Your task to perform on an android device: turn on the 12-hour format for clock Image 0: 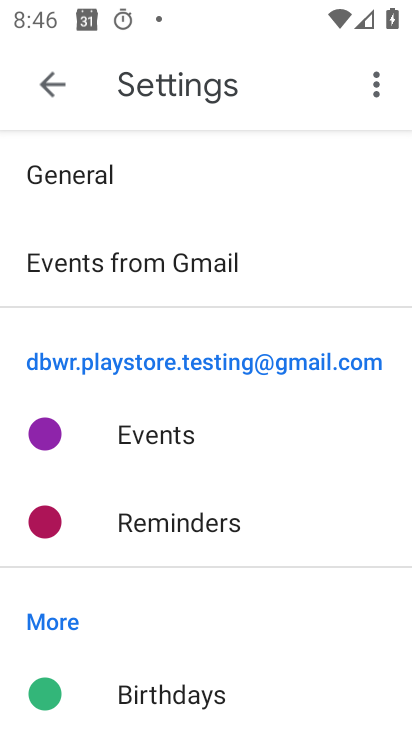
Step 0: press home button
Your task to perform on an android device: turn on the 12-hour format for clock Image 1: 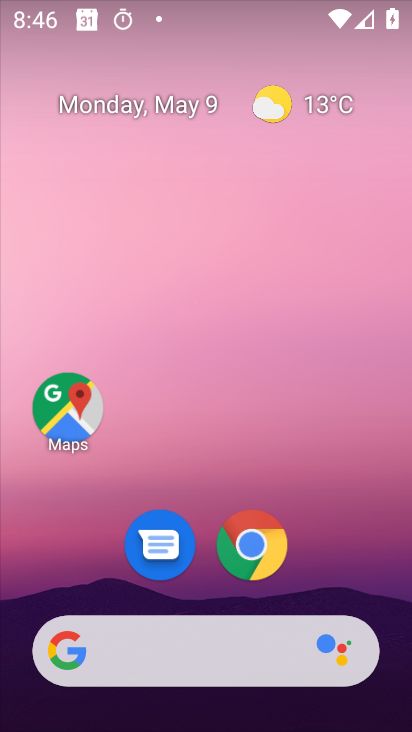
Step 1: drag from (342, 555) to (322, 6)
Your task to perform on an android device: turn on the 12-hour format for clock Image 2: 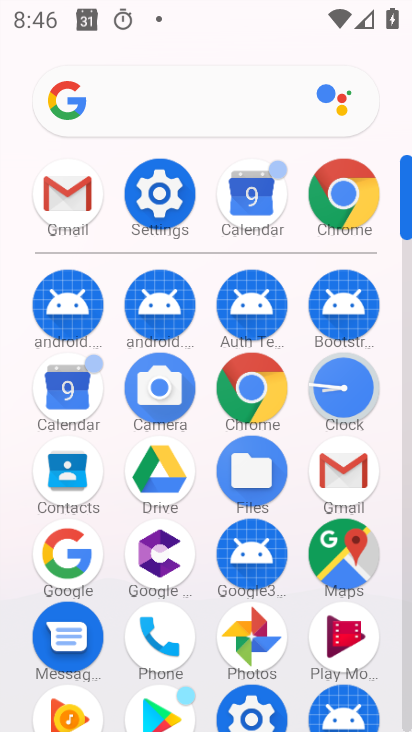
Step 2: click (341, 402)
Your task to perform on an android device: turn on the 12-hour format for clock Image 3: 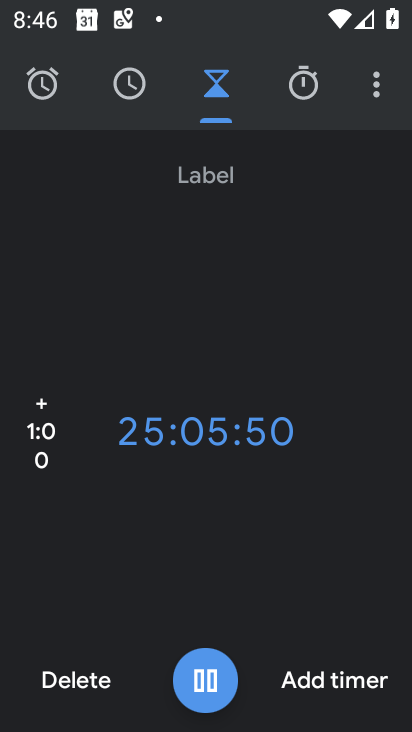
Step 3: click (366, 74)
Your task to perform on an android device: turn on the 12-hour format for clock Image 4: 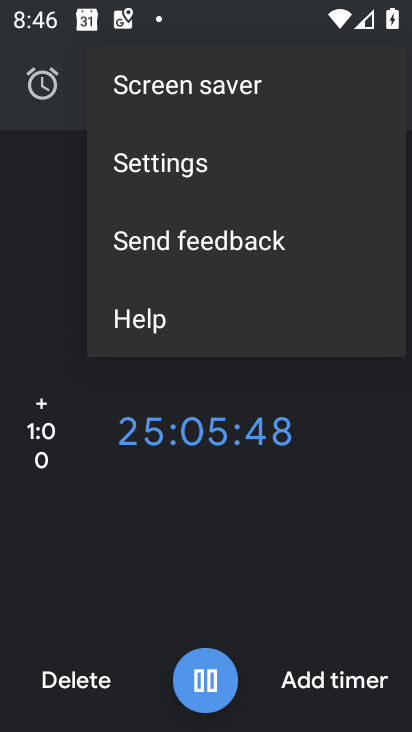
Step 4: click (204, 170)
Your task to perform on an android device: turn on the 12-hour format for clock Image 5: 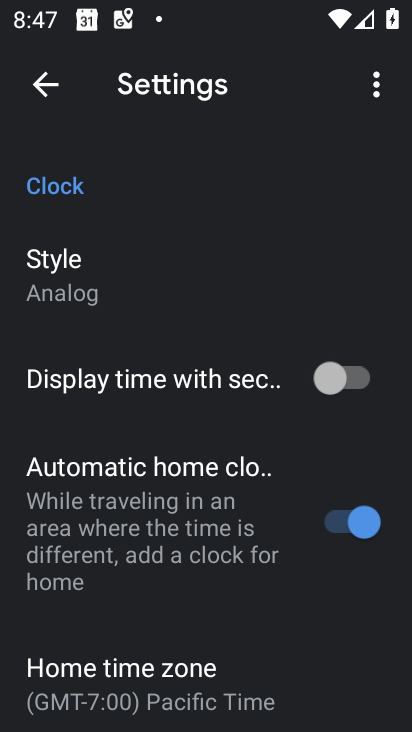
Step 5: drag from (240, 576) to (264, 181)
Your task to perform on an android device: turn on the 12-hour format for clock Image 6: 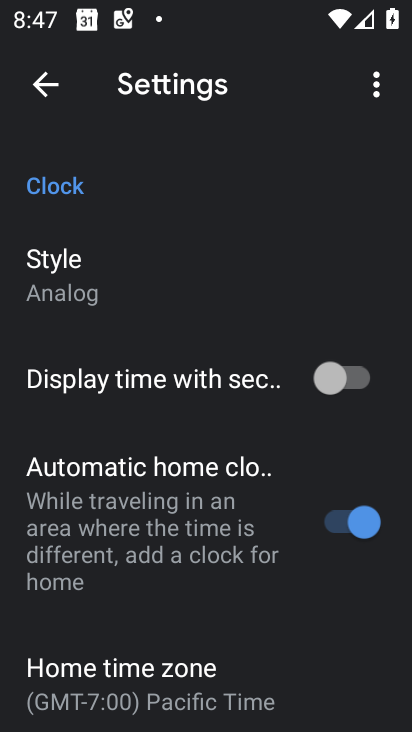
Step 6: drag from (212, 653) to (283, 207)
Your task to perform on an android device: turn on the 12-hour format for clock Image 7: 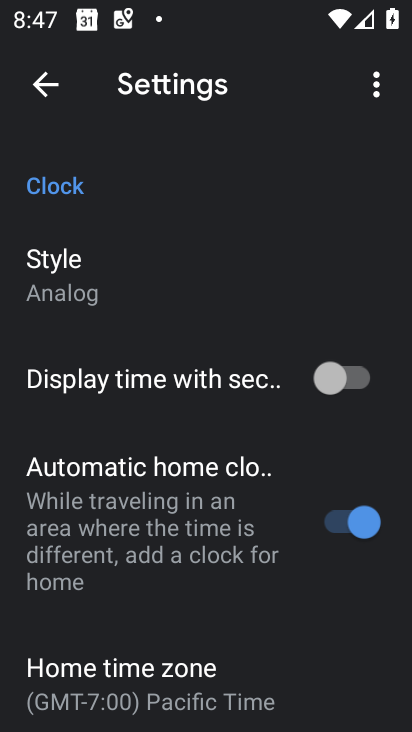
Step 7: drag from (192, 482) to (128, 124)
Your task to perform on an android device: turn on the 12-hour format for clock Image 8: 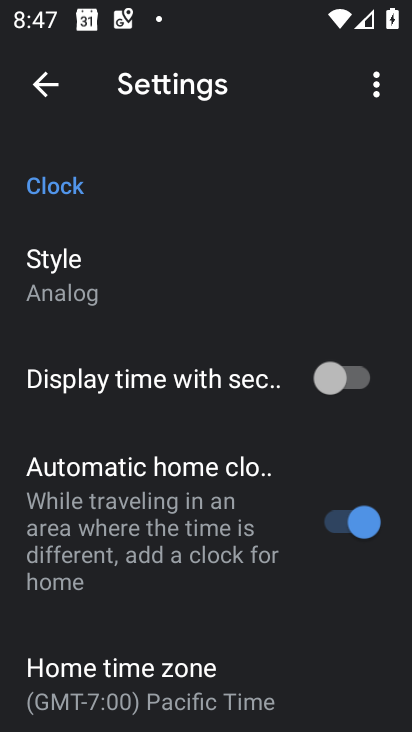
Step 8: click (61, 84)
Your task to perform on an android device: turn on the 12-hour format for clock Image 9: 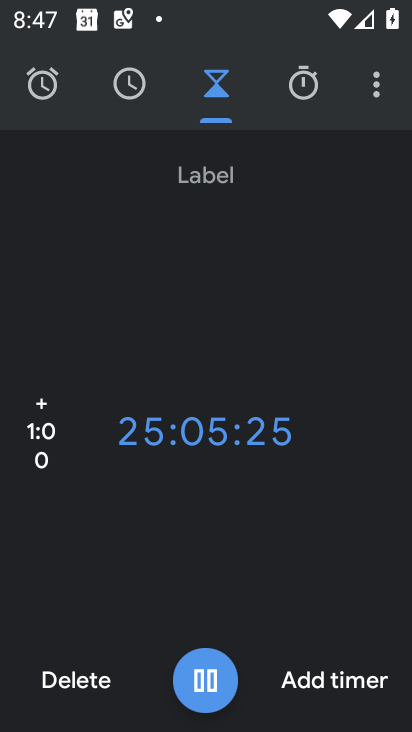
Step 9: click (377, 94)
Your task to perform on an android device: turn on the 12-hour format for clock Image 10: 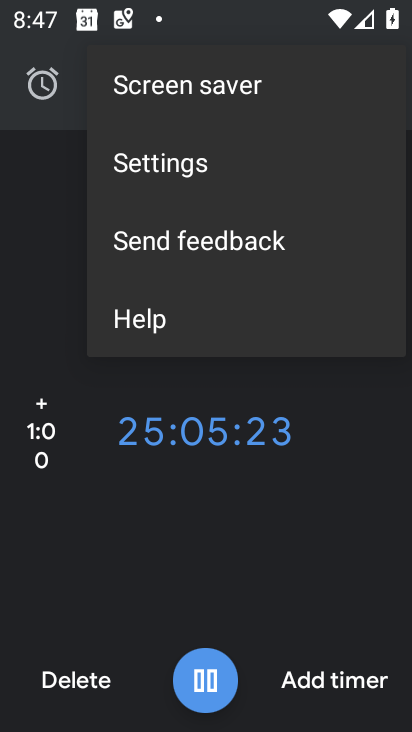
Step 10: click (156, 179)
Your task to perform on an android device: turn on the 12-hour format for clock Image 11: 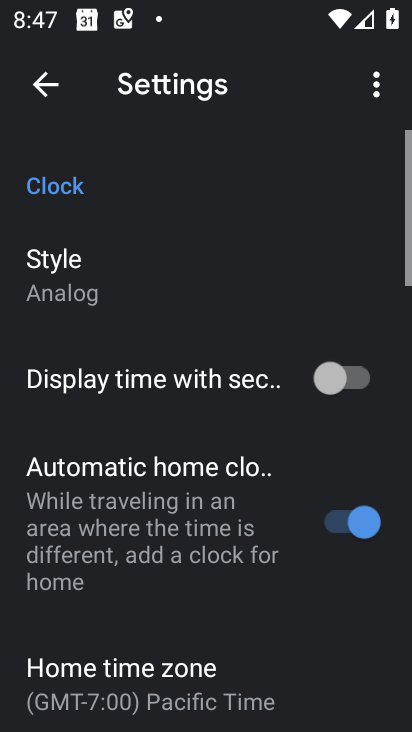
Step 11: drag from (202, 199) to (230, 592)
Your task to perform on an android device: turn on the 12-hour format for clock Image 12: 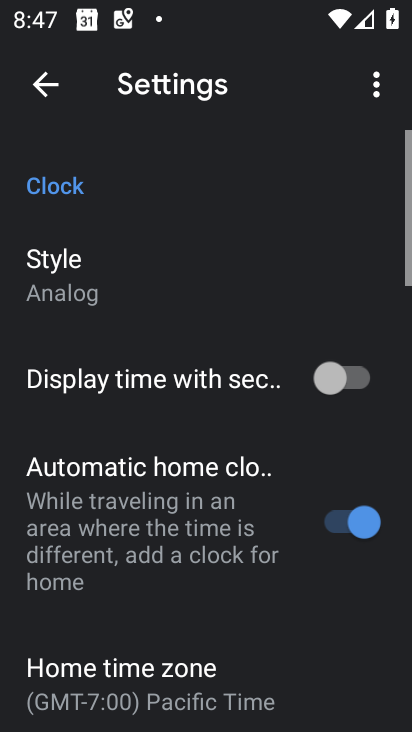
Step 12: drag from (205, 631) to (170, 171)
Your task to perform on an android device: turn on the 12-hour format for clock Image 13: 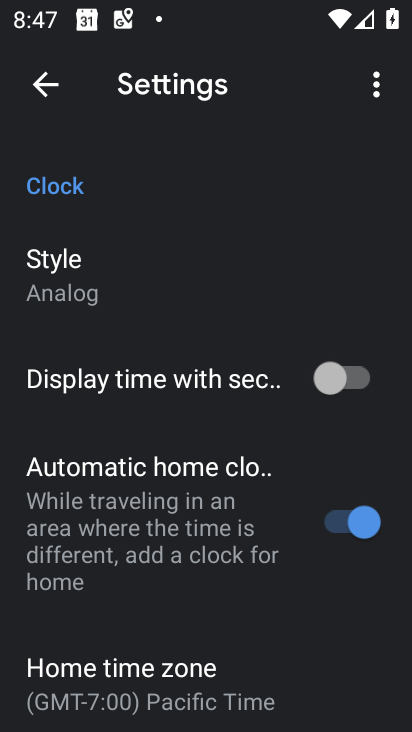
Step 13: drag from (234, 682) to (129, 202)
Your task to perform on an android device: turn on the 12-hour format for clock Image 14: 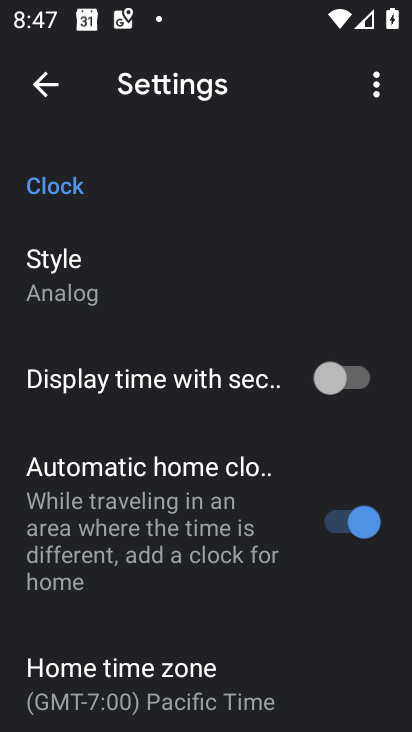
Step 14: drag from (224, 580) to (173, 210)
Your task to perform on an android device: turn on the 12-hour format for clock Image 15: 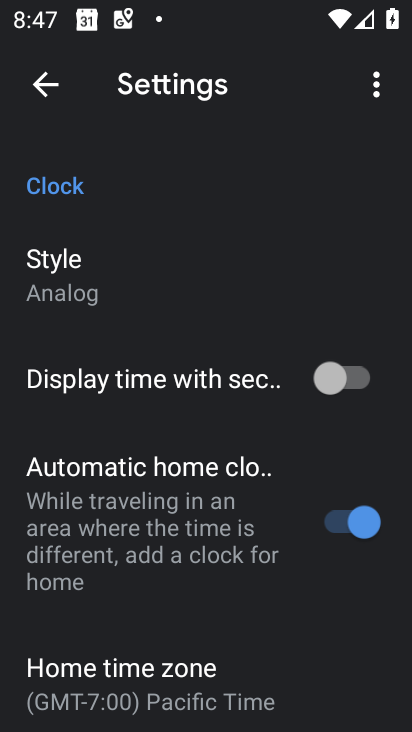
Step 15: drag from (147, 680) to (127, 273)
Your task to perform on an android device: turn on the 12-hour format for clock Image 16: 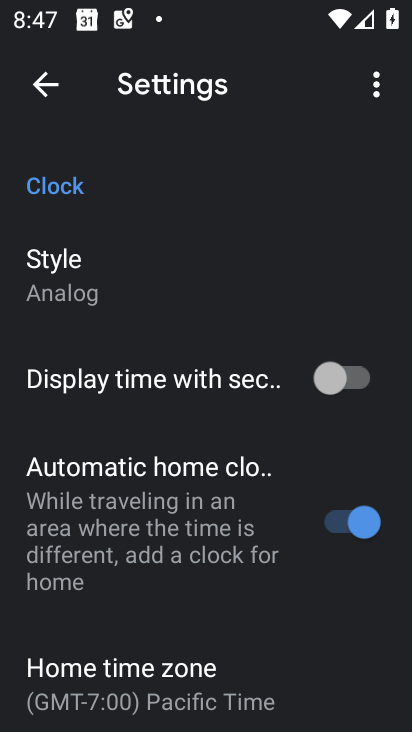
Step 16: drag from (47, 673) to (107, 138)
Your task to perform on an android device: turn on the 12-hour format for clock Image 17: 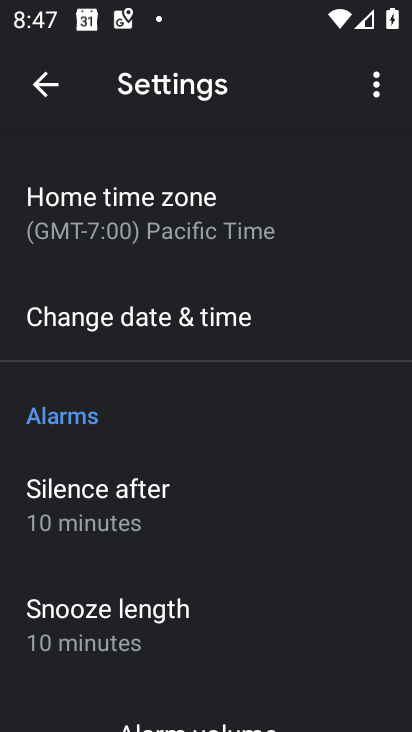
Step 17: click (130, 320)
Your task to perform on an android device: turn on the 12-hour format for clock Image 18: 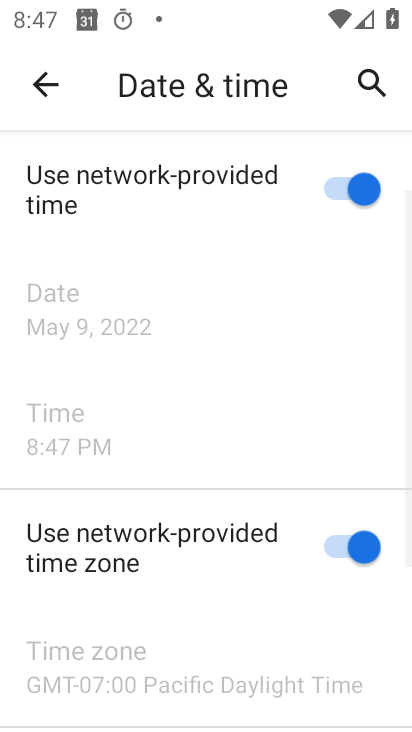
Step 18: drag from (152, 599) to (106, 170)
Your task to perform on an android device: turn on the 12-hour format for clock Image 19: 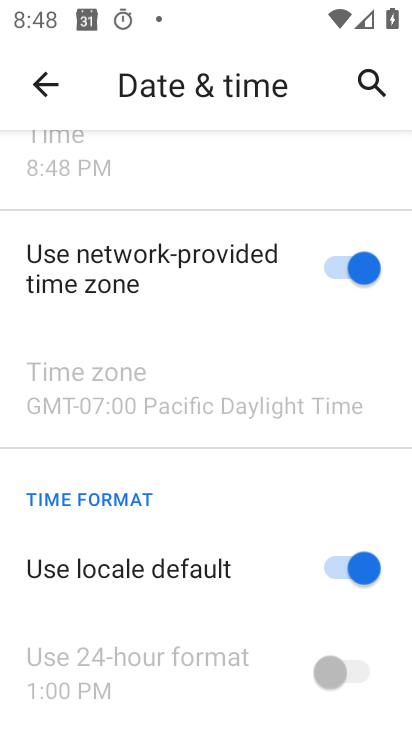
Step 19: drag from (197, 647) to (159, 337)
Your task to perform on an android device: turn on the 12-hour format for clock Image 20: 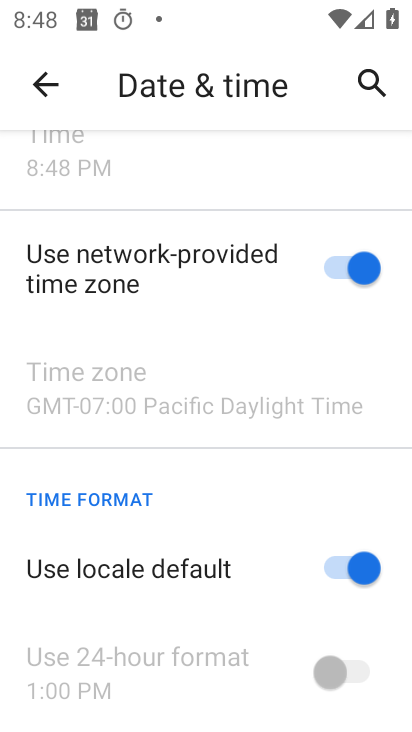
Step 20: click (349, 561)
Your task to perform on an android device: turn on the 12-hour format for clock Image 21: 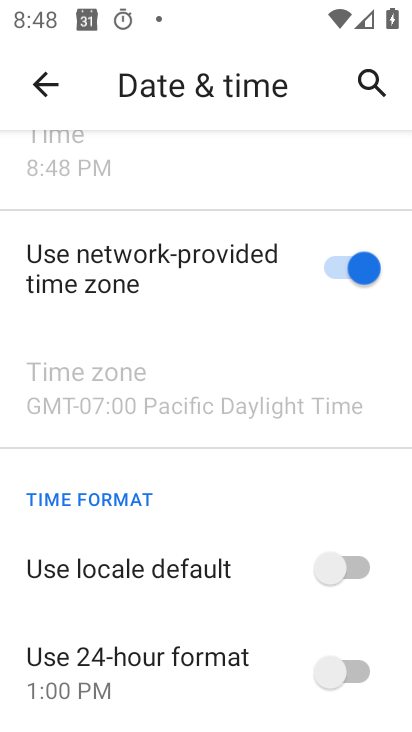
Step 21: task complete